Your task to perform on an android device: change keyboard looks Image 0: 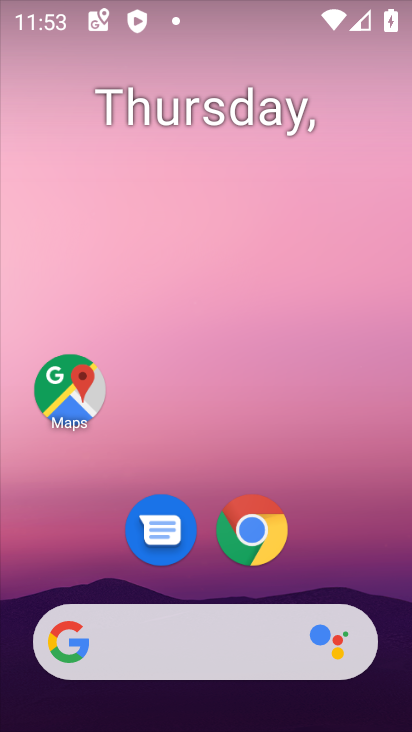
Step 0: drag from (328, 568) to (253, 22)
Your task to perform on an android device: change keyboard looks Image 1: 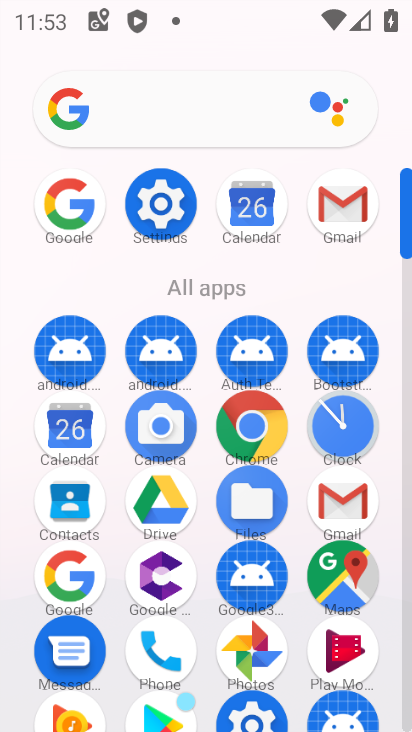
Step 1: click (161, 204)
Your task to perform on an android device: change keyboard looks Image 2: 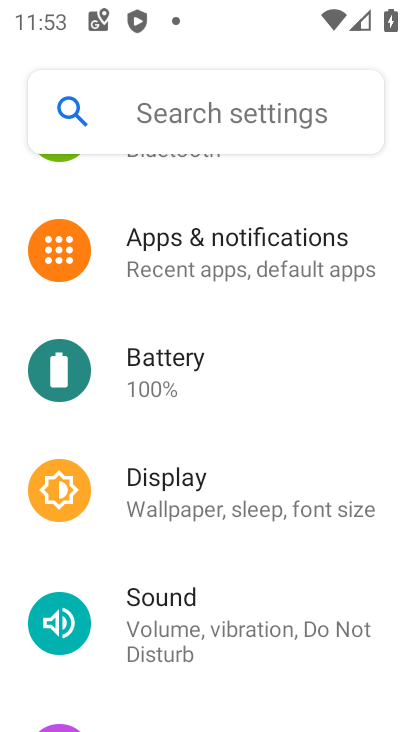
Step 2: drag from (241, 469) to (266, 394)
Your task to perform on an android device: change keyboard looks Image 3: 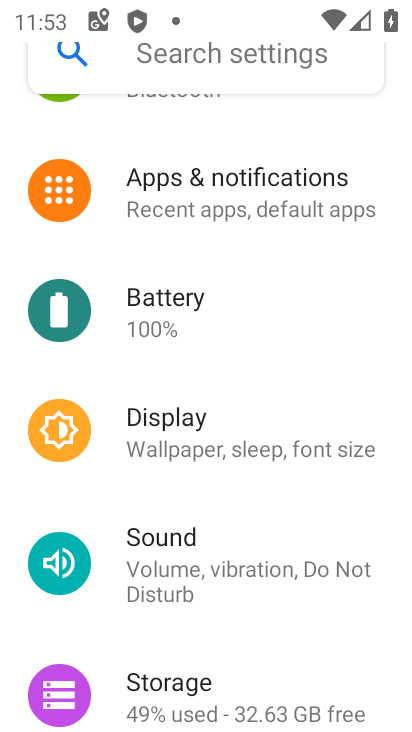
Step 3: drag from (242, 522) to (294, 420)
Your task to perform on an android device: change keyboard looks Image 4: 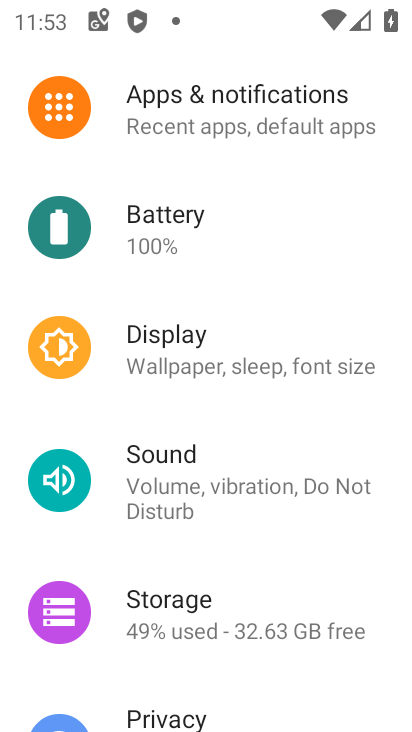
Step 4: drag from (235, 574) to (319, 451)
Your task to perform on an android device: change keyboard looks Image 5: 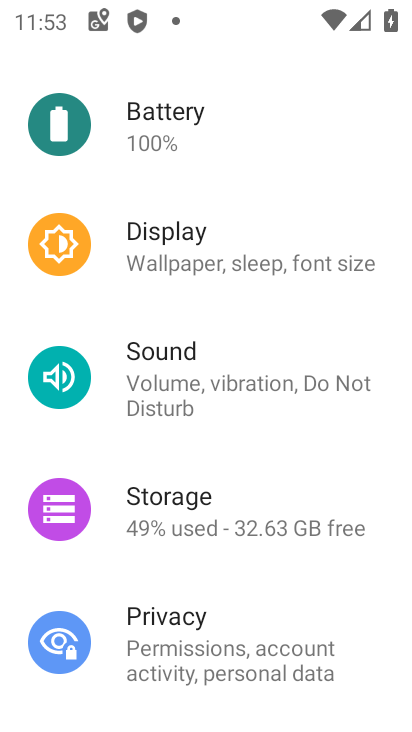
Step 5: drag from (243, 578) to (292, 486)
Your task to perform on an android device: change keyboard looks Image 6: 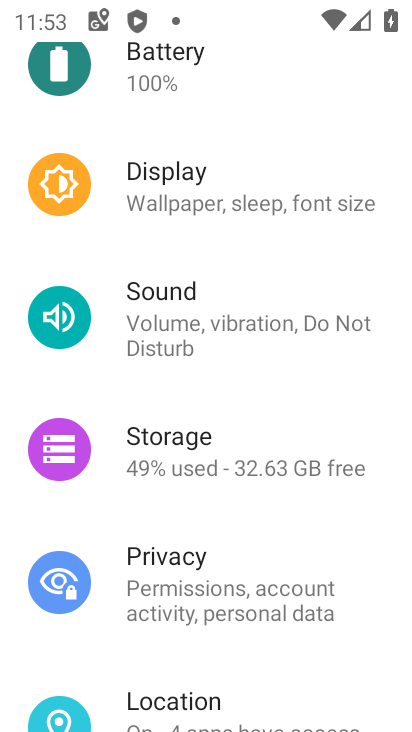
Step 6: drag from (221, 646) to (292, 513)
Your task to perform on an android device: change keyboard looks Image 7: 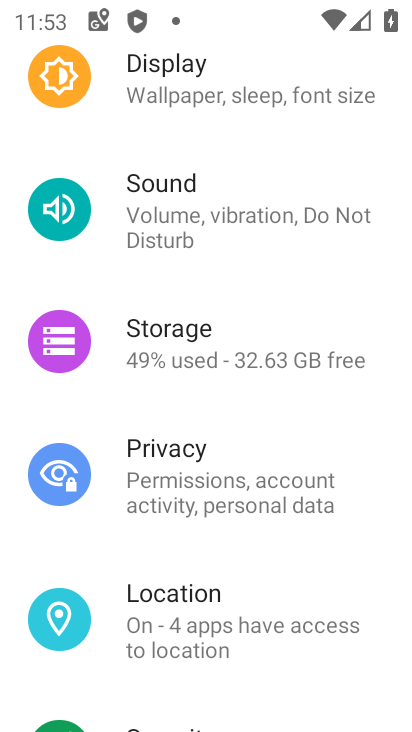
Step 7: drag from (260, 545) to (324, 410)
Your task to perform on an android device: change keyboard looks Image 8: 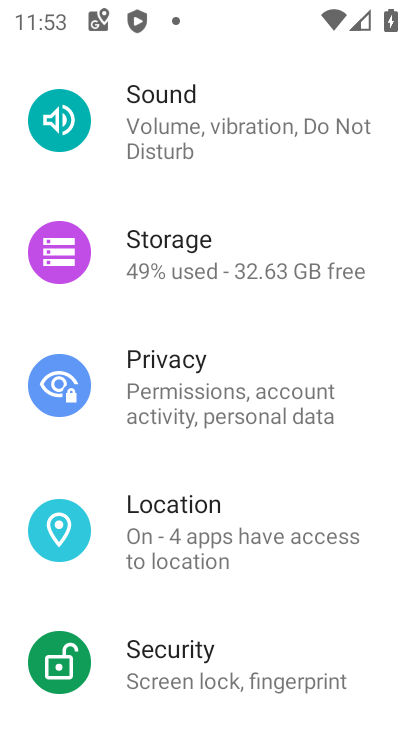
Step 8: drag from (249, 622) to (320, 489)
Your task to perform on an android device: change keyboard looks Image 9: 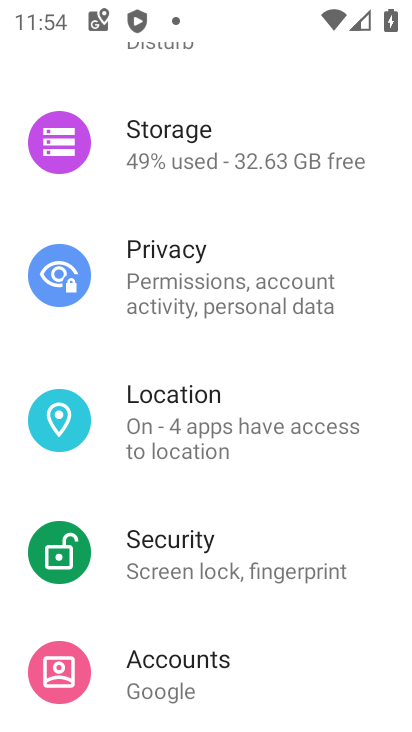
Step 9: drag from (224, 612) to (300, 509)
Your task to perform on an android device: change keyboard looks Image 10: 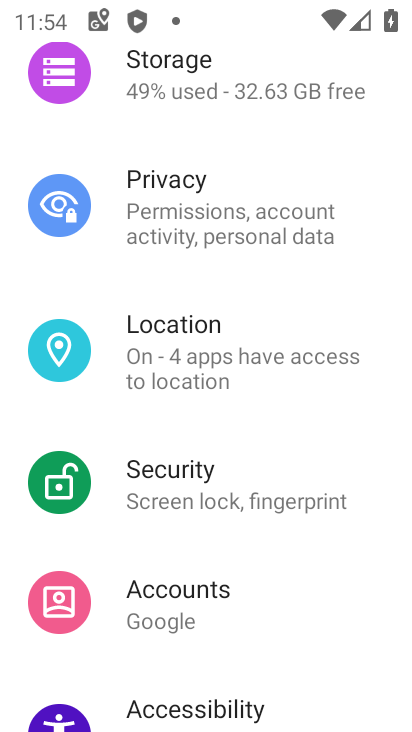
Step 10: drag from (215, 659) to (301, 522)
Your task to perform on an android device: change keyboard looks Image 11: 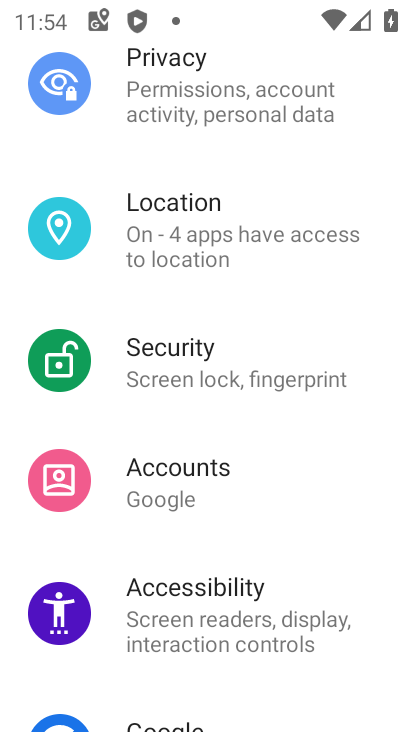
Step 11: drag from (190, 544) to (239, 389)
Your task to perform on an android device: change keyboard looks Image 12: 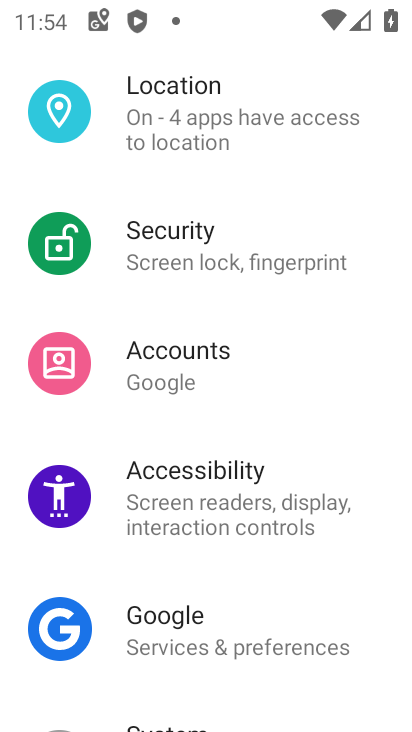
Step 12: drag from (174, 560) to (247, 408)
Your task to perform on an android device: change keyboard looks Image 13: 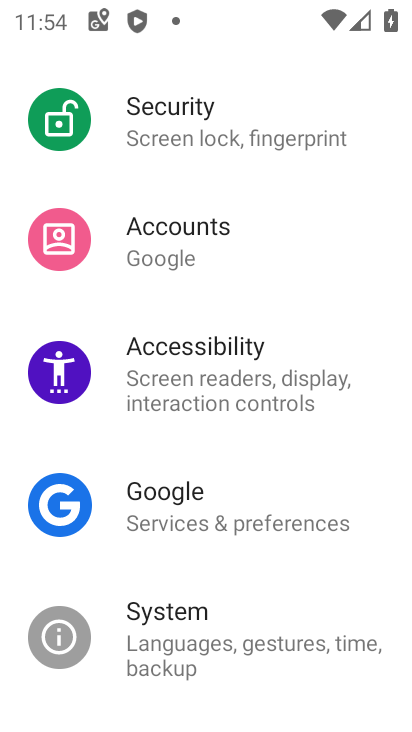
Step 13: drag from (205, 558) to (266, 445)
Your task to perform on an android device: change keyboard looks Image 14: 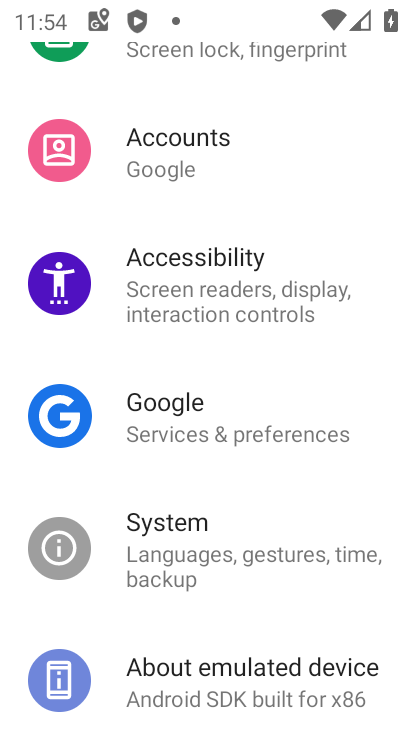
Step 14: click (219, 565)
Your task to perform on an android device: change keyboard looks Image 15: 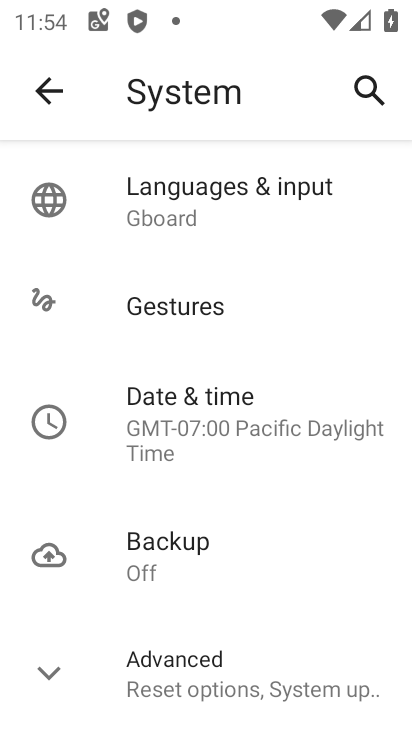
Step 15: click (196, 205)
Your task to perform on an android device: change keyboard looks Image 16: 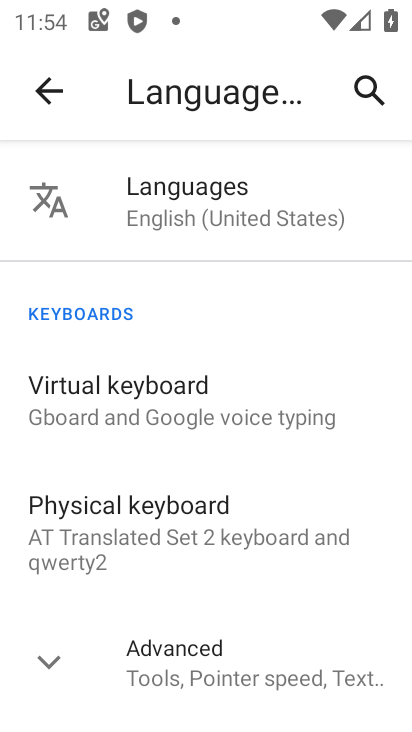
Step 16: click (180, 411)
Your task to perform on an android device: change keyboard looks Image 17: 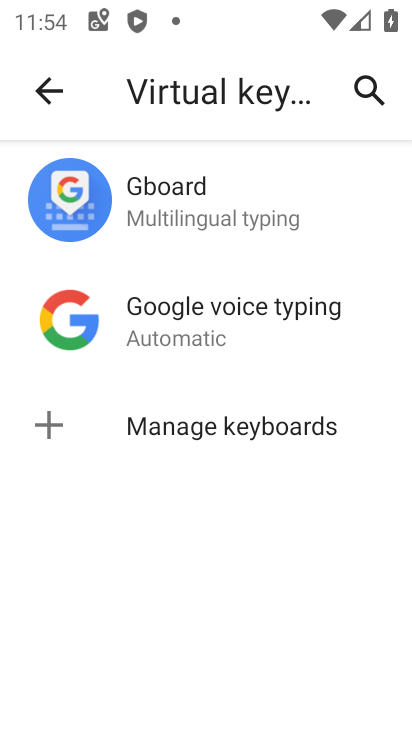
Step 17: click (167, 191)
Your task to perform on an android device: change keyboard looks Image 18: 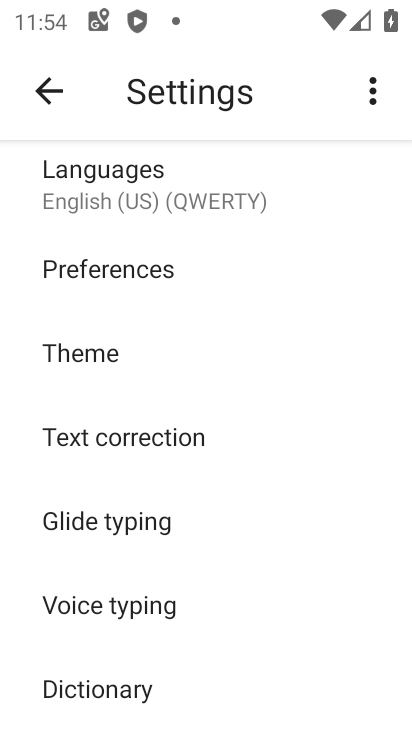
Step 18: click (86, 360)
Your task to perform on an android device: change keyboard looks Image 19: 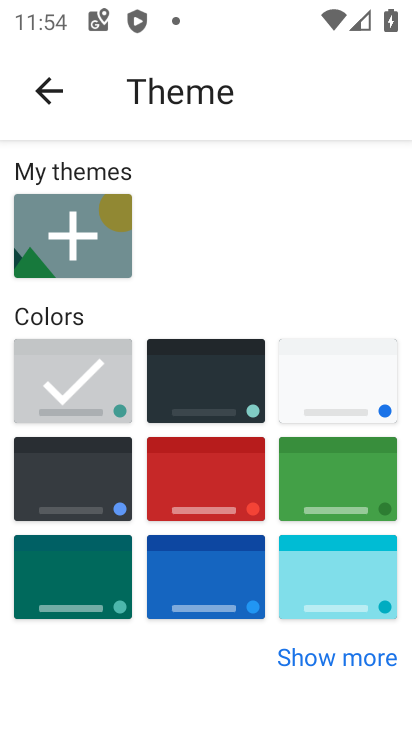
Step 19: click (117, 484)
Your task to perform on an android device: change keyboard looks Image 20: 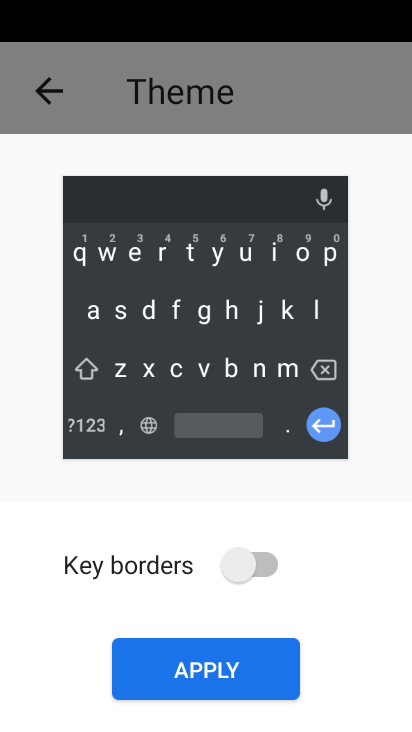
Step 20: click (251, 554)
Your task to perform on an android device: change keyboard looks Image 21: 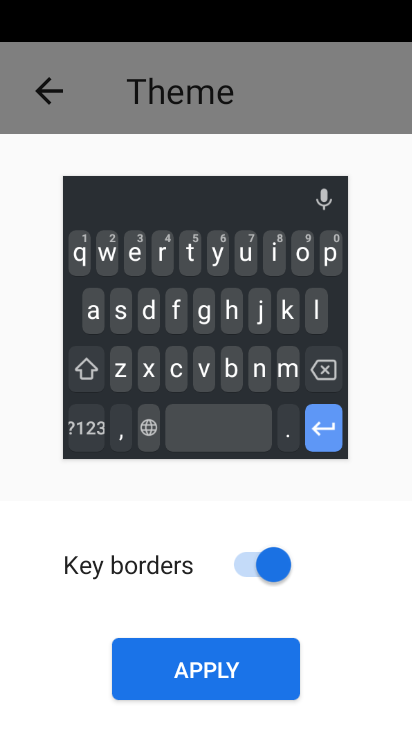
Step 21: click (190, 656)
Your task to perform on an android device: change keyboard looks Image 22: 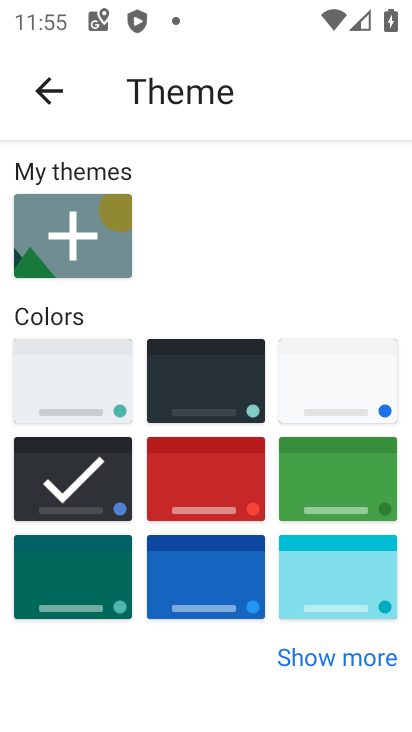
Step 22: task complete